Your task to perform on an android device: set an alarm Image 0: 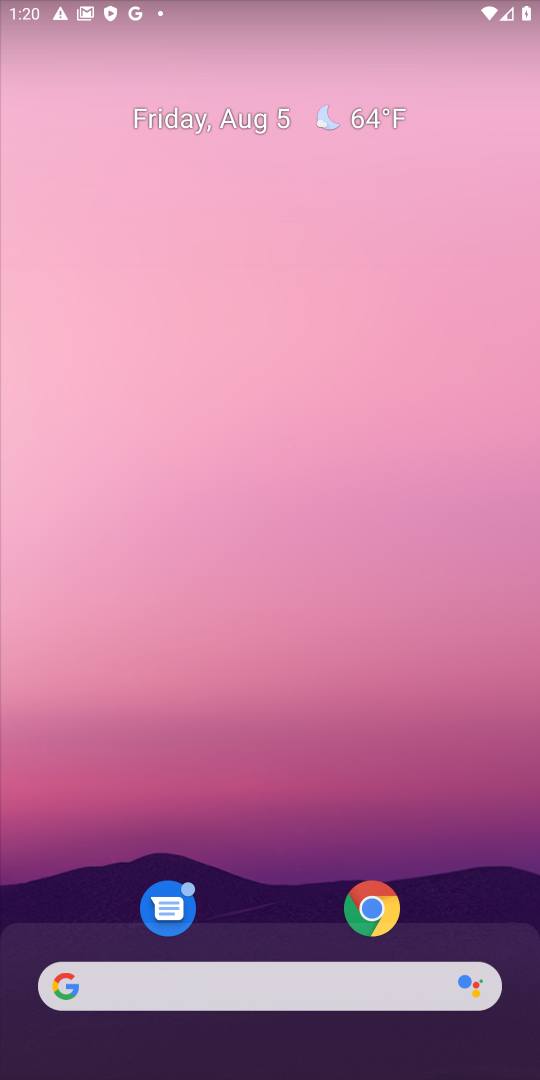
Step 0: drag from (325, 917) to (282, 153)
Your task to perform on an android device: set an alarm Image 1: 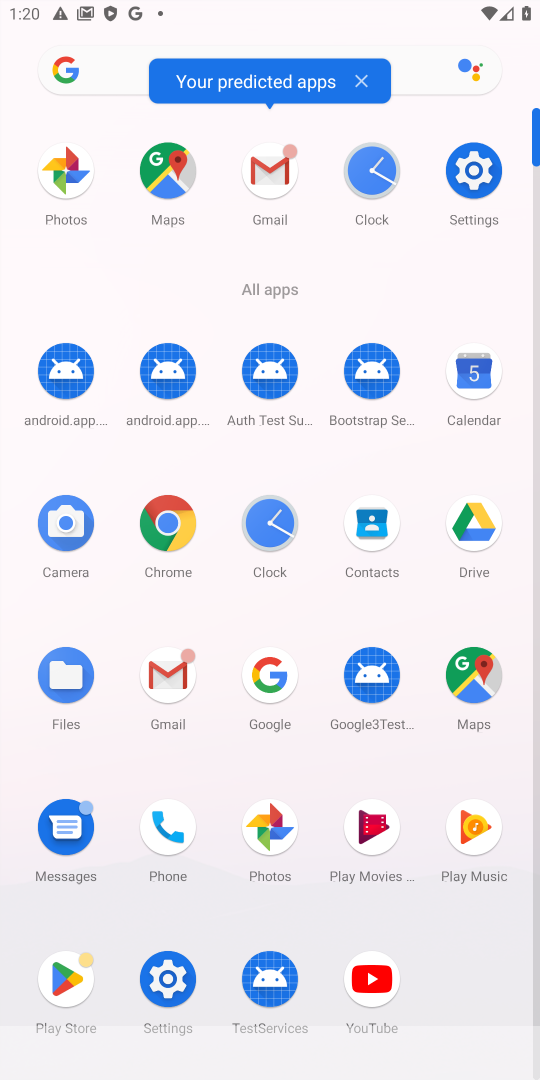
Step 1: click (278, 537)
Your task to perform on an android device: set an alarm Image 2: 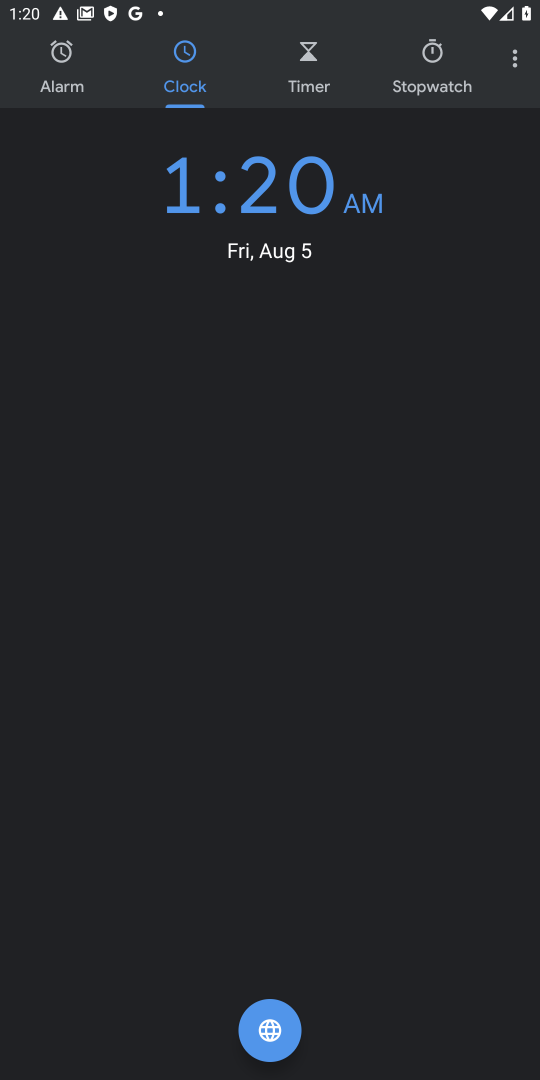
Step 2: click (56, 90)
Your task to perform on an android device: set an alarm Image 3: 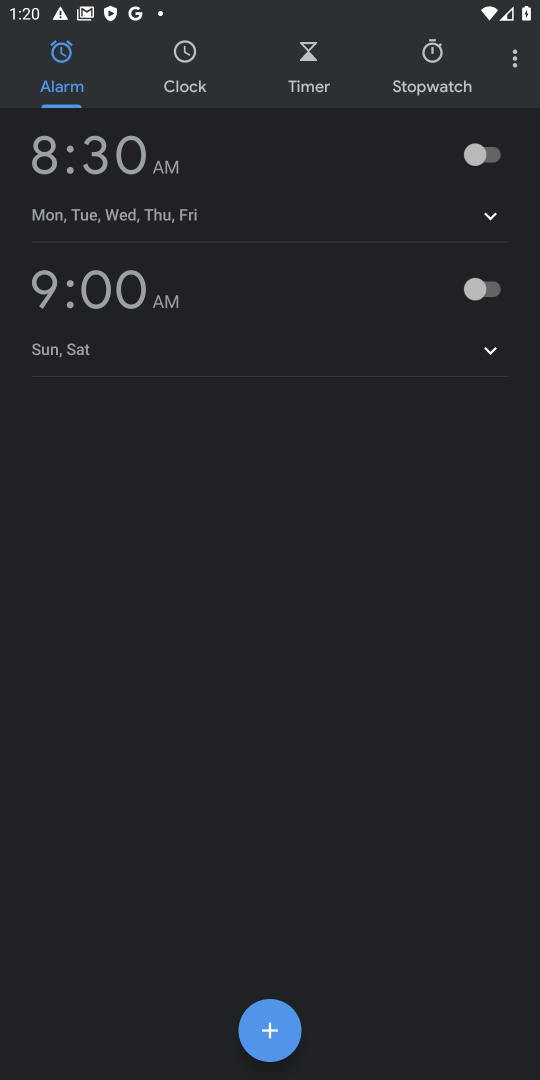
Step 3: click (268, 1038)
Your task to perform on an android device: set an alarm Image 4: 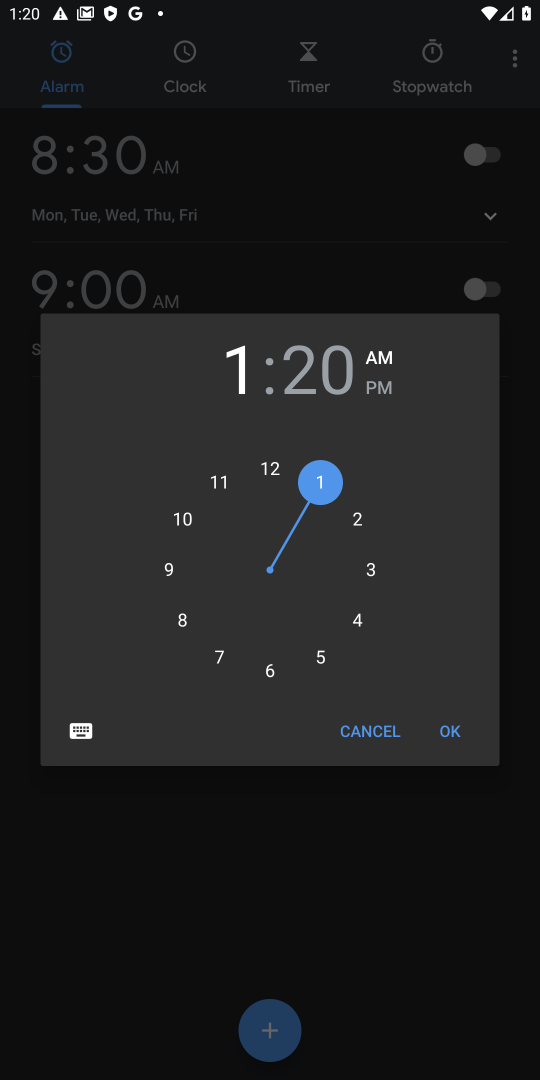
Step 4: click (438, 729)
Your task to perform on an android device: set an alarm Image 5: 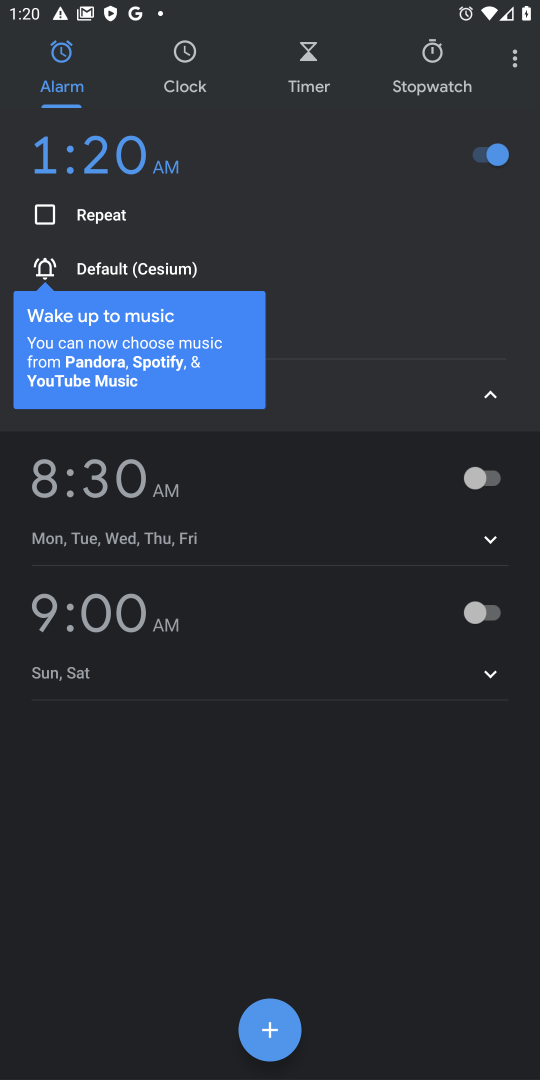
Step 5: task complete